Your task to perform on an android device: turn on sleep mode Image 0: 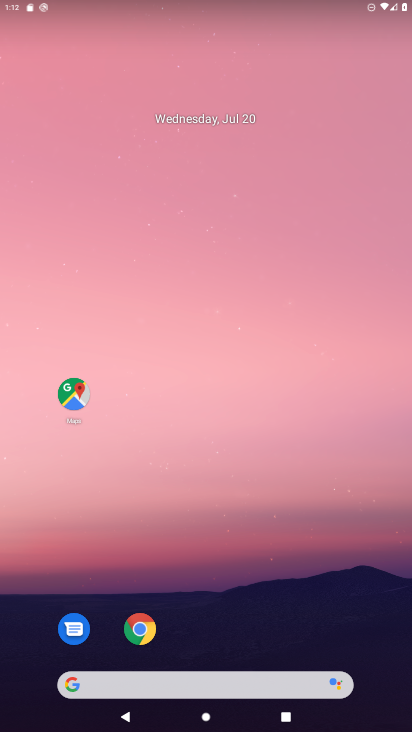
Step 0: drag from (187, 631) to (158, 6)
Your task to perform on an android device: turn on sleep mode Image 1: 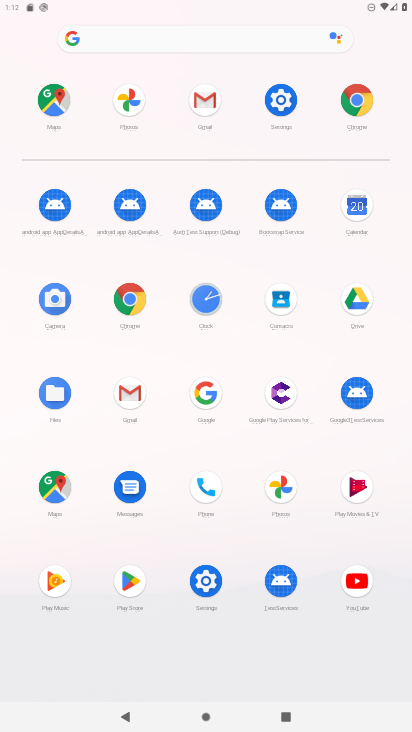
Step 1: click (274, 102)
Your task to perform on an android device: turn on sleep mode Image 2: 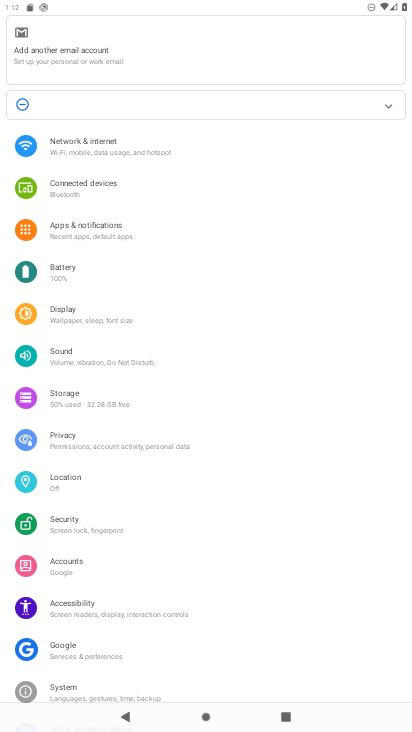
Step 2: task complete